Your task to perform on an android device: turn on priority inbox in the gmail app Image 0: 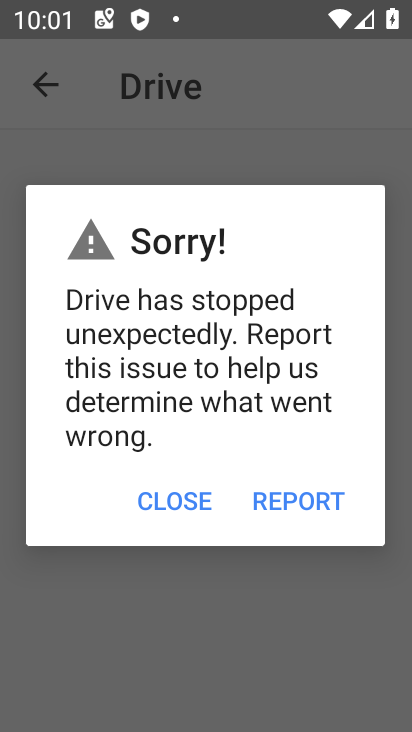
Step 0: press home button
Your task to perform on an android device: turn on priority inbox in the gmail app Image 1: 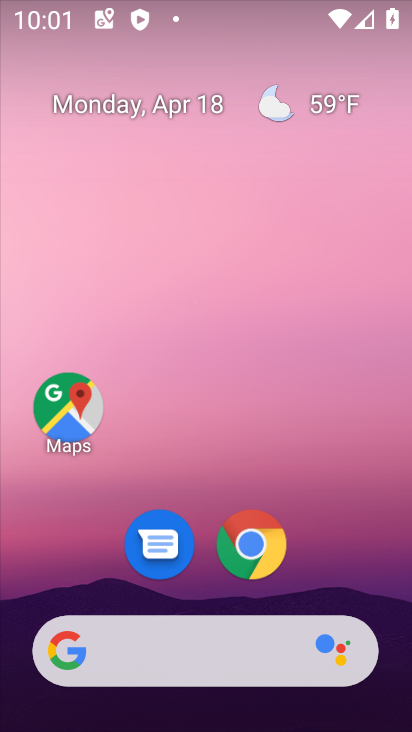
Step 1: drag from (289, 616) to (296, 229)
Your task to perform on an android device: turn on priority inbox in the gmail app Image 2: 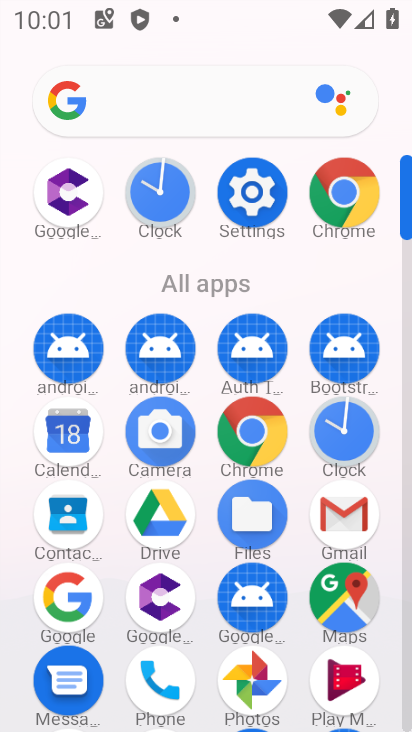
Step 2: click (333, 507)
Your task to perform on an android device: turn on priority inbox in the gmail app Image 3: 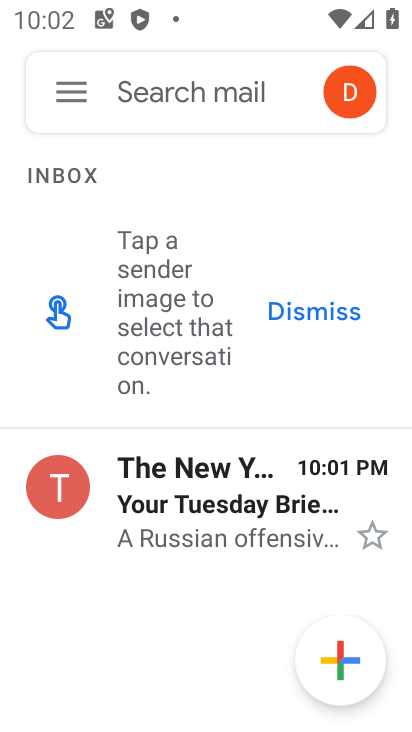
Step 3: click (67, 99)
Your task to perform on an android device: turn on priority inbox in the gmail app Image 4: 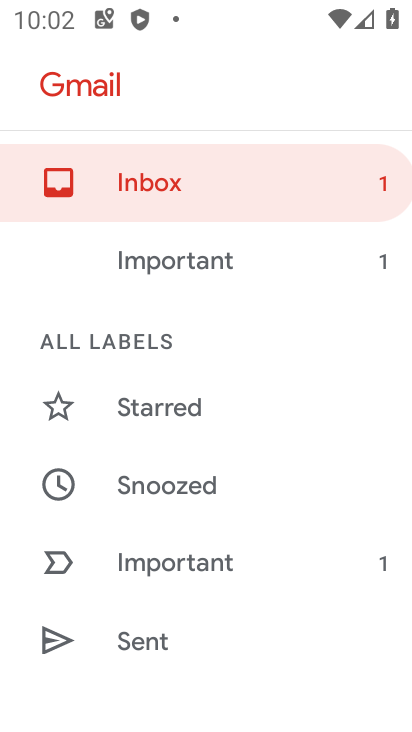
Step 4: drag from (141, 634) to (229, 99)
Your task to perform on an android device: turn on priority inbox in the gmail app Image 5: 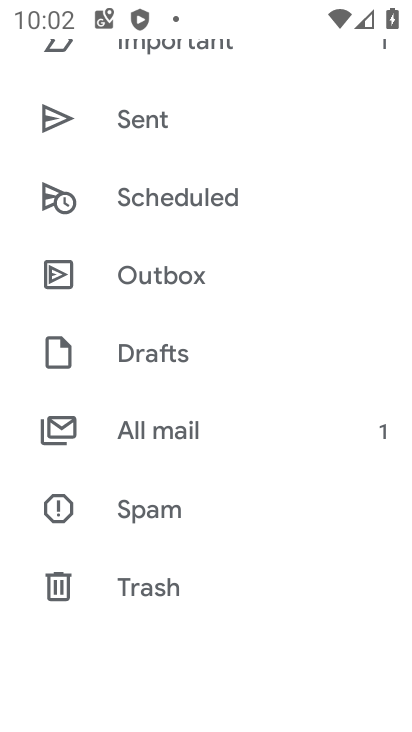
Step 5: drag from (158, 641) to (257, 101)
Your task to perform on an android device: turn on priority inbox in the gmail app Image 6: 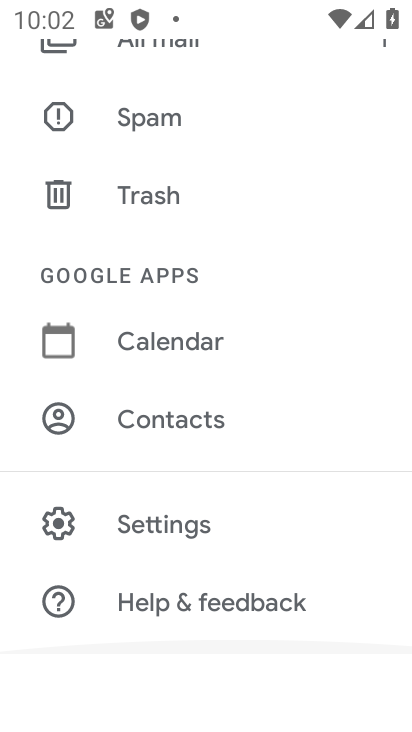
Step 6: click (161, 499)
Your task to perform on an android device: turn on priority inbox in the gmail app Image 7: 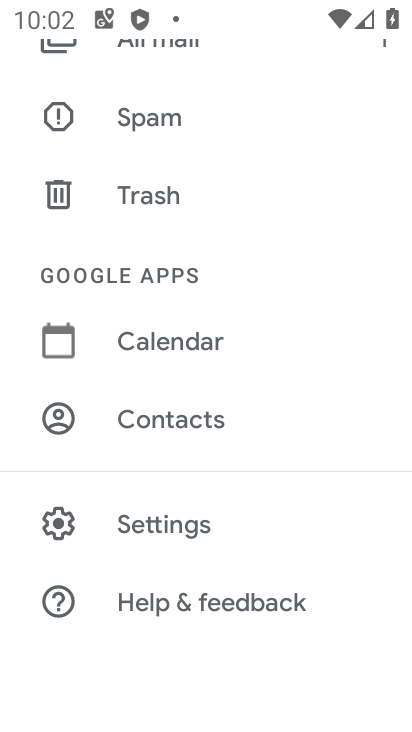
Step 7: click (159, 527)
Your task to perform on an android device: turn on priority inbox in the gmail app Image 8: 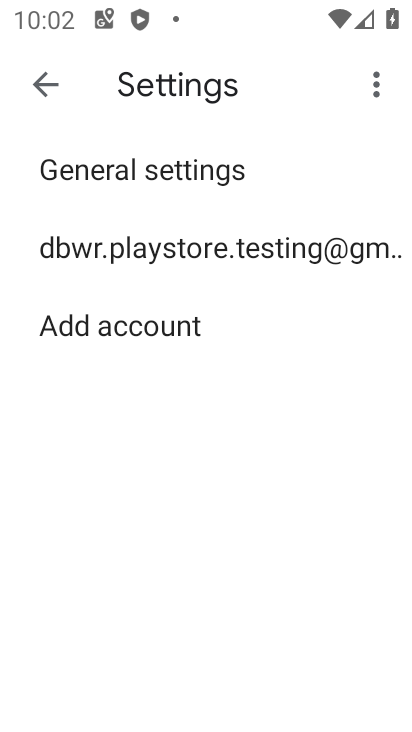
Step 8: click (162, 235)
Your task to perform on an android device: turn on priority inbox in the gmail app Image 9: 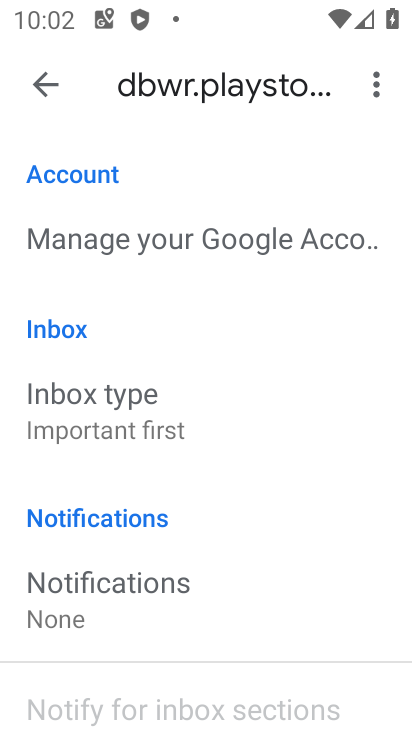
Step 9: drag from (252, 590) to (282, 511)
Your task to perform on an android device: turn on priority inbox in the gmail app Image 10: 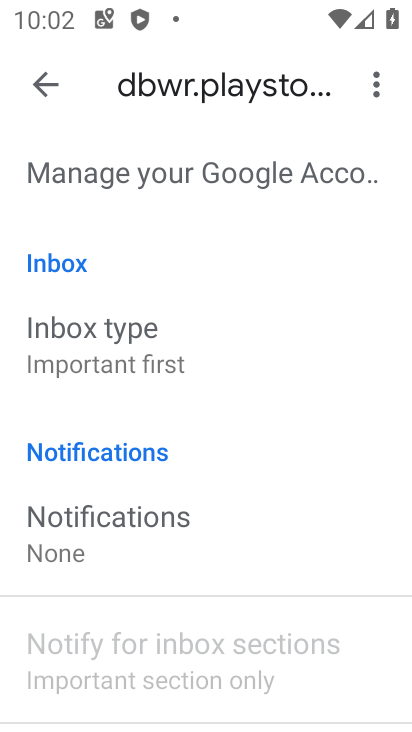
Step 10: click (146, 357)
Your task to perform on an android device: turn on priority inbox in the gmail app Image 11: 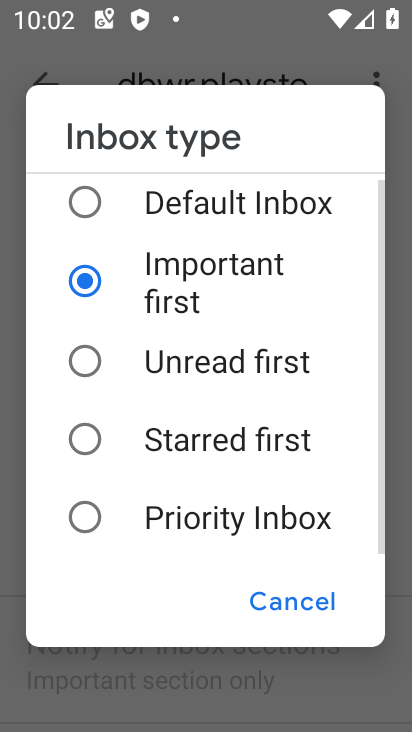
Step 11: click (218, 523)
Your task to perform on an android device: turn on priority inbox in the gmail app Image 12: 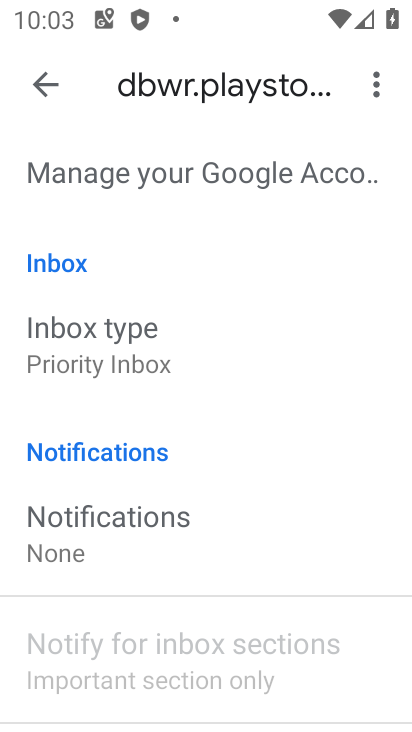
Step 12: task complete